Your task to perform on an android device: Open Google Maps Image 0: 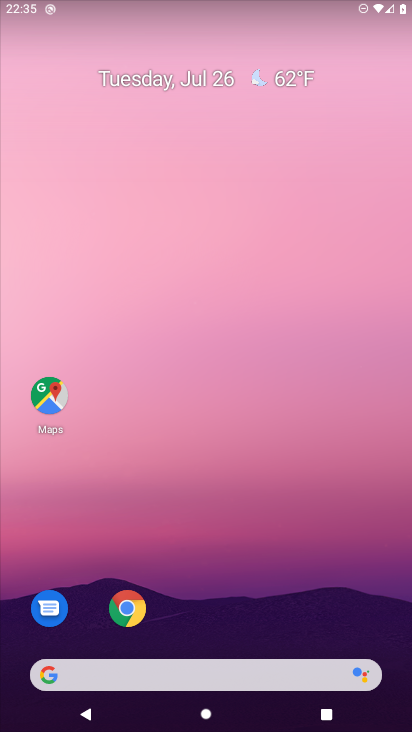
Step 0: click (41, 396)
Your task to perform on an android device: Open Google Maps Image 1: 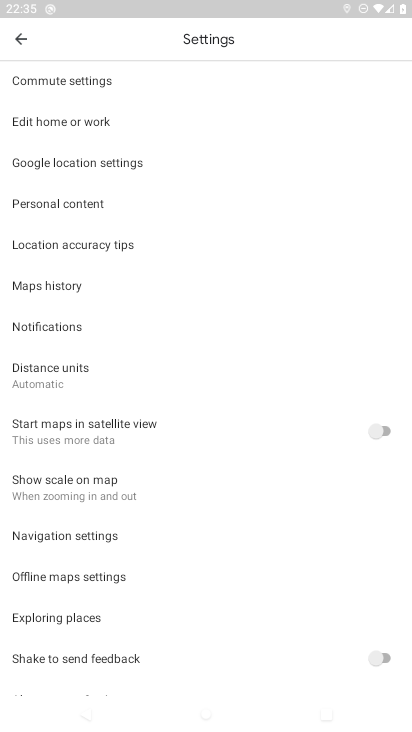
Step 1: click (13, 34)
Your task to perform on an android device: Open Google Maps Image 2: 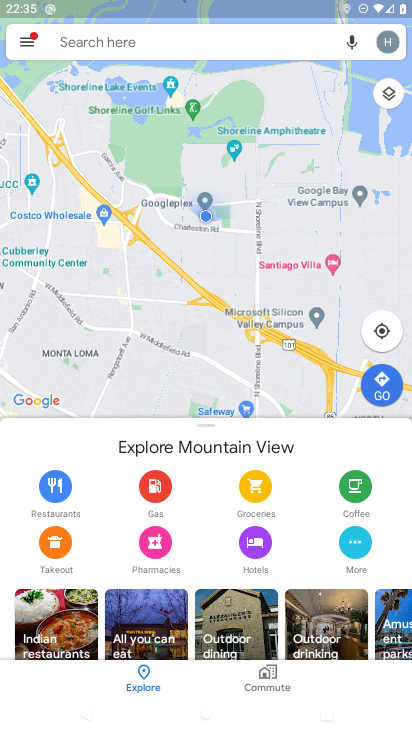
Step 2: task complete